Your task to perform on an android device: turn pop-ups on in chrome Image 0: 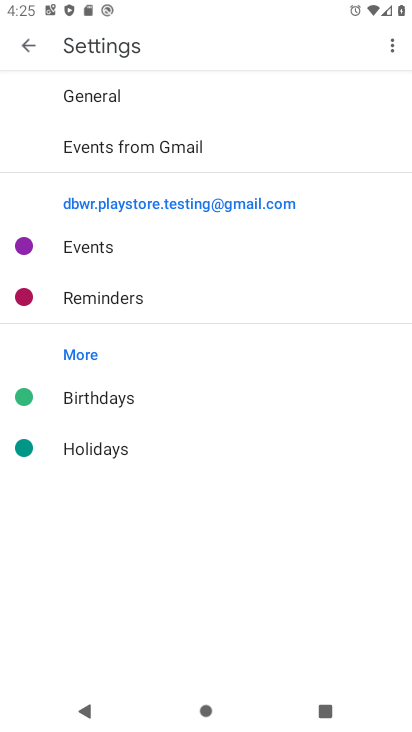
Step 0: press home button
Your task to perform on an android device: turn pop-ups on in chrome Image 1: 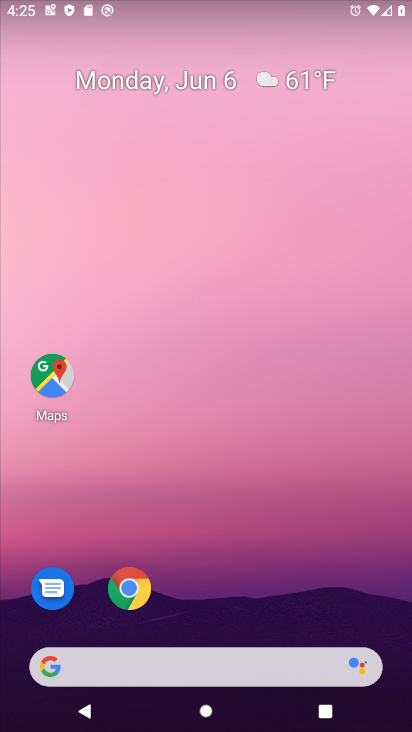
Step 1: click (131, 590)
Your task to perform on an android device: turn pop-ups on in chrome Image 2: 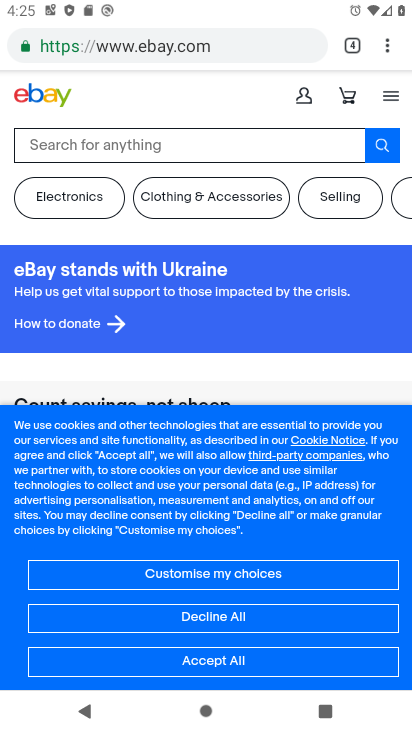
Step 2: click (393, 47)
Your task to perform on an android device: turn pop-ups on in chrome Image 3: 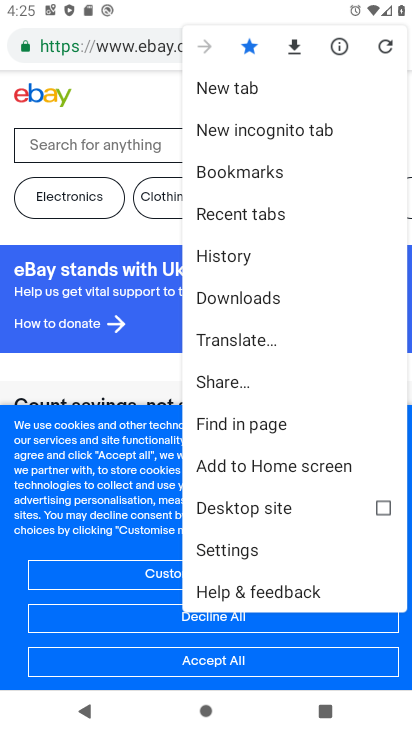
Step 3: click (289, 543)
Your task to perform on an android device: turn pop-ups on in chrome Image 4: 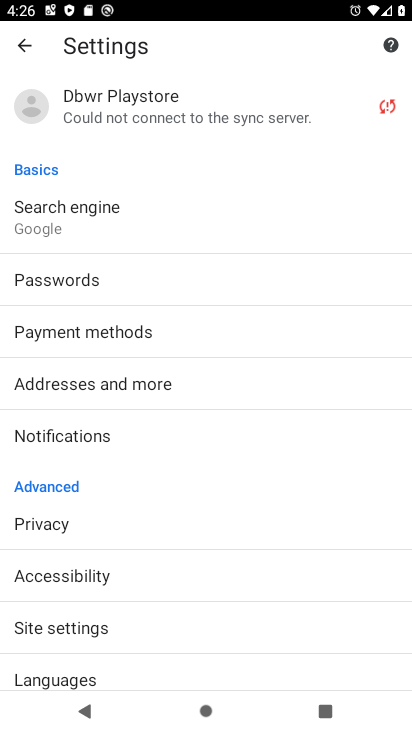
Step 4: click (198, 629)
Your task to perform on an android device: turn pop-ups on in chrome Image 5: 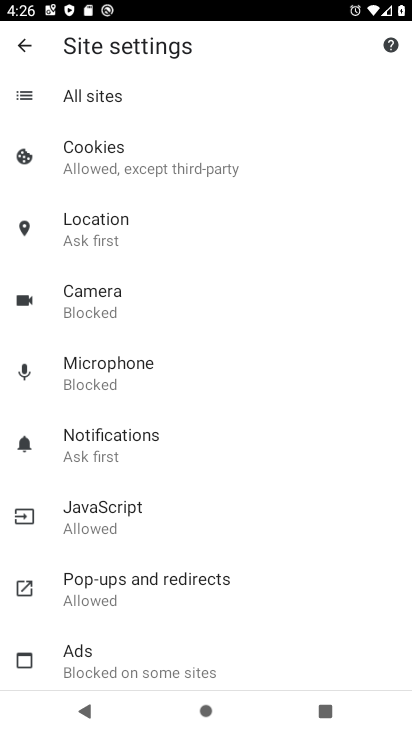
Step 5: click (191, 592)
Your task to perform on an android device: turn pop-ups on in chrome Image 6: 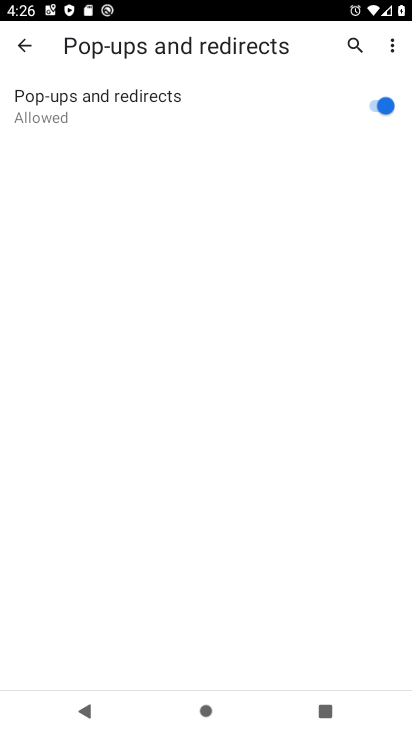
Step 6: task complete